Your task to perform on an android device: Go to accessibility settings Image 0: 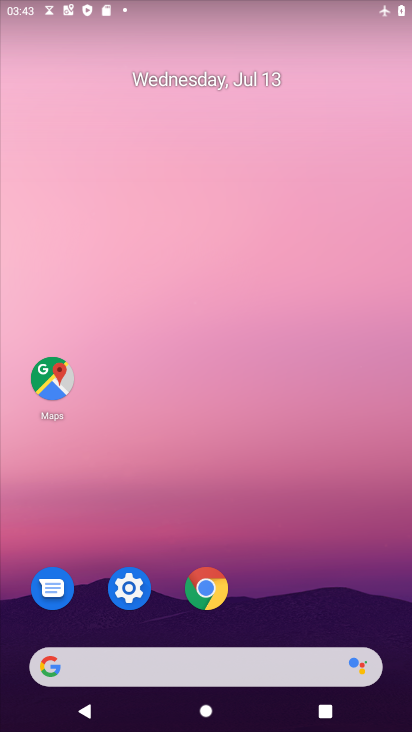
Step 0: drag from (281, 674) to (172, 147)
Your task to perform on an android device: Go to accessibility settings Image 1: 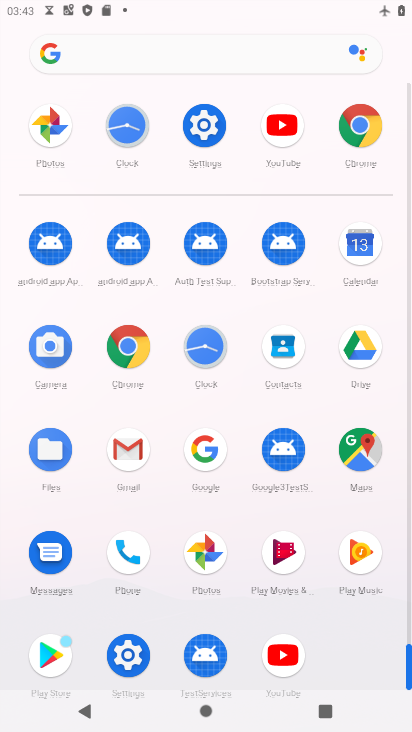
Step 1: click (126, 658)
Your task to perform on an android device: Go to accessibility settings Image 2: 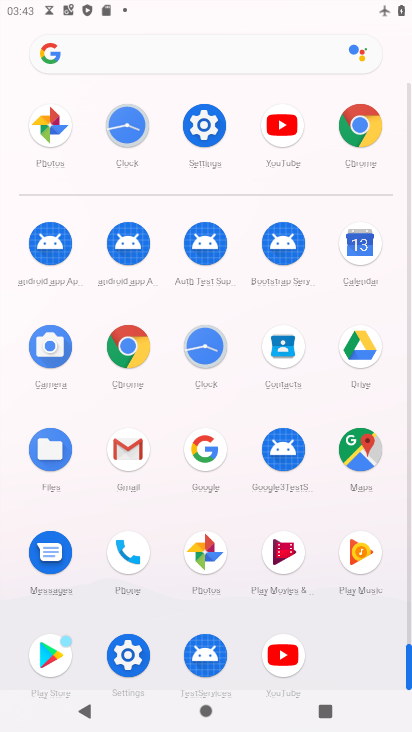
Step 2: click (131, 646)
Your task to perform on an android device: Go to accessibility settings Image 3: 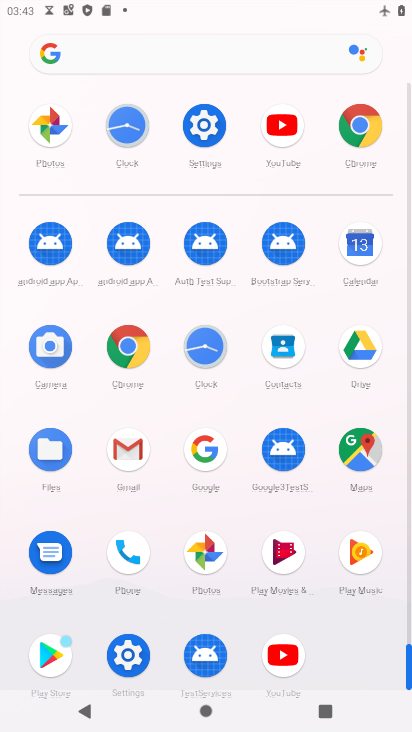
Step 3: click (133, 646)
Your task to perform on an android device: Go to accessibility settings Image 4: 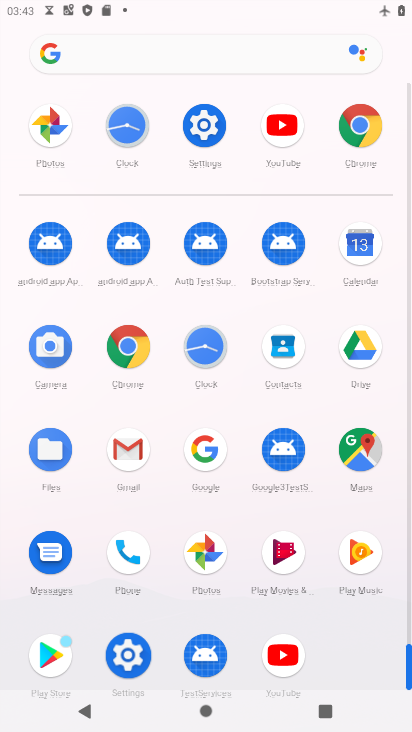
Step 4: click (133, 646)
Your task to perform on an android device: Go to accessibility settings Image 5: 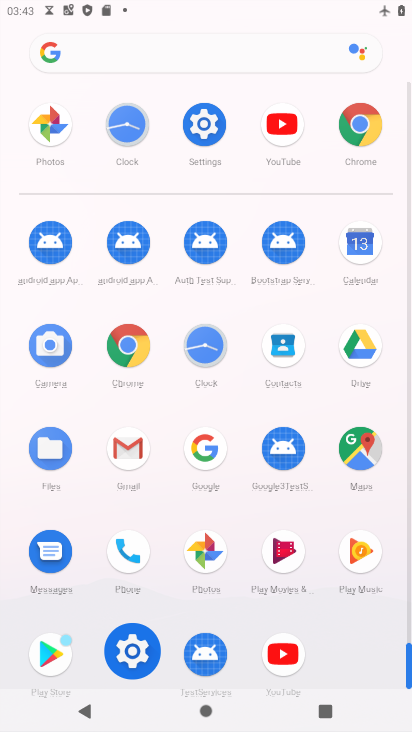
Step 5: click (134, 646)
Your task to perform on an android device: Go to accessibility settings Image 6: 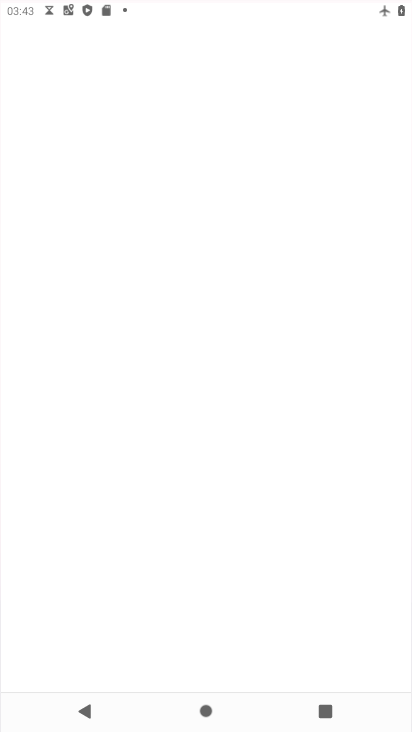
Step 6: click (138, 645)
Your task to perform on an android device: Go to accessibility settings Image 7: 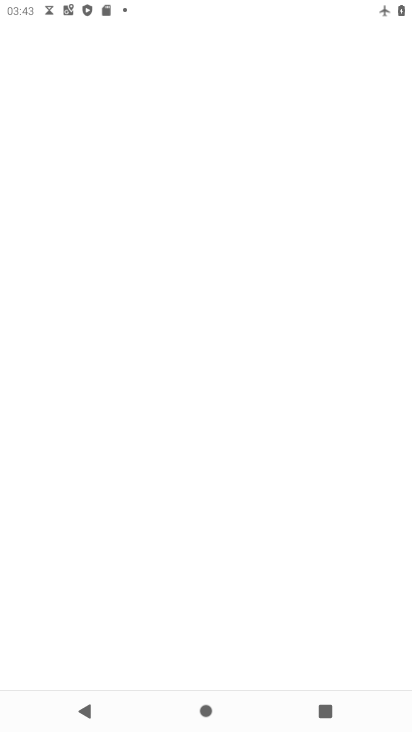
Step 7: click (141, 644)
Your task to perform on an android device: Go to accessibility settings Image 8: 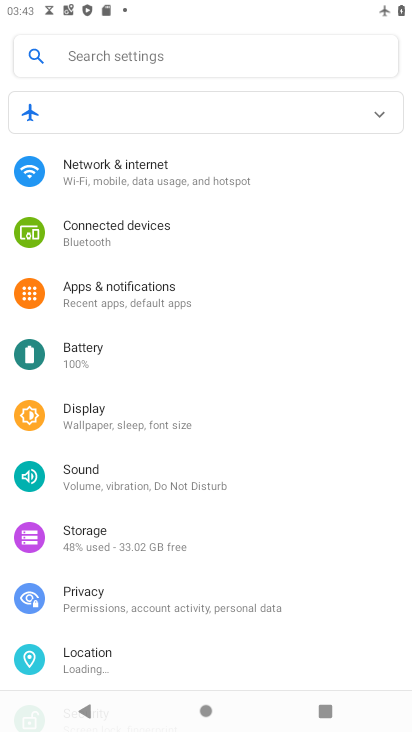
Step 8: drag from (137, 563) to (126, 148)
Your task to perform on an android device: Go to accessibility settings Image 9: 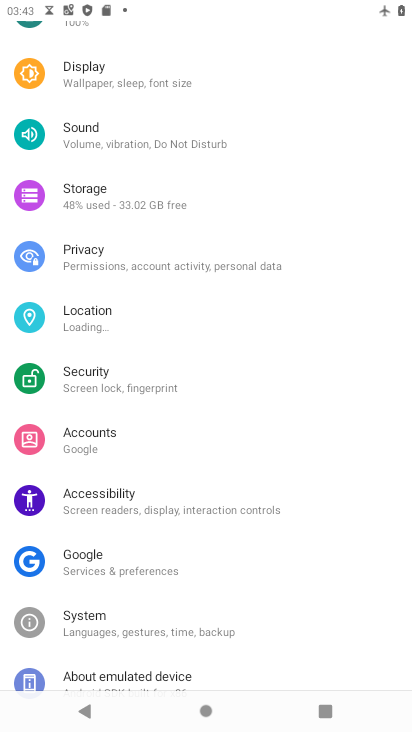
Step 9: drag from (123, 466) to (118, 113)
Your task to perform on an android device: Go to accessibility settings Image 10: 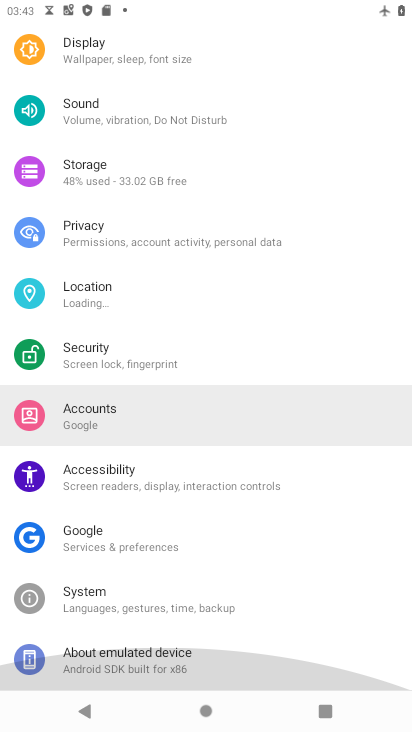
Step 10: drag from (132, 441) to (111, 197)
Your task to perform on an android device: Go to accessibility settings Image 11: 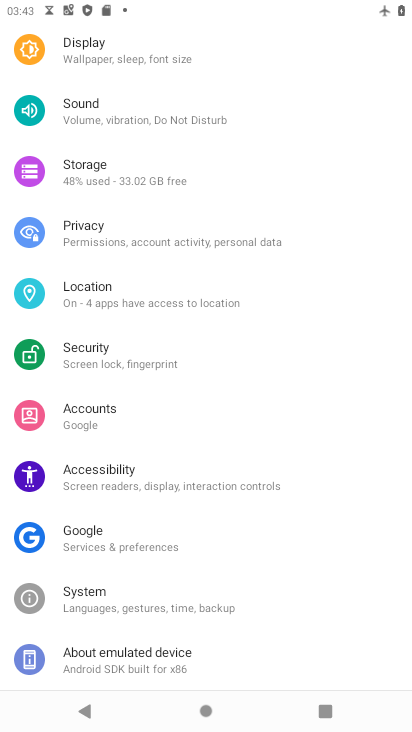
Step 11: click (96, 476)
Your task to perform on an android device: Go to accessibility settings Image 12: 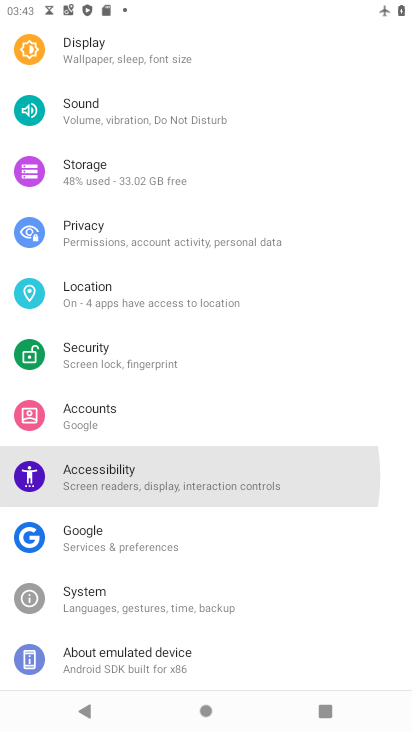
Step 12: click (97, 477)
Your task to perform on an android device: Go to accessibility settings Image 13: 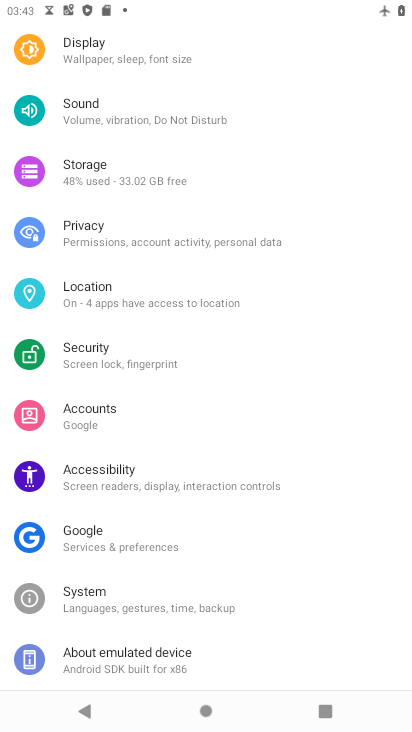
Step 13: click (106, 479)
Your task to perform on an android device: Go to accessibility settings Image 14: 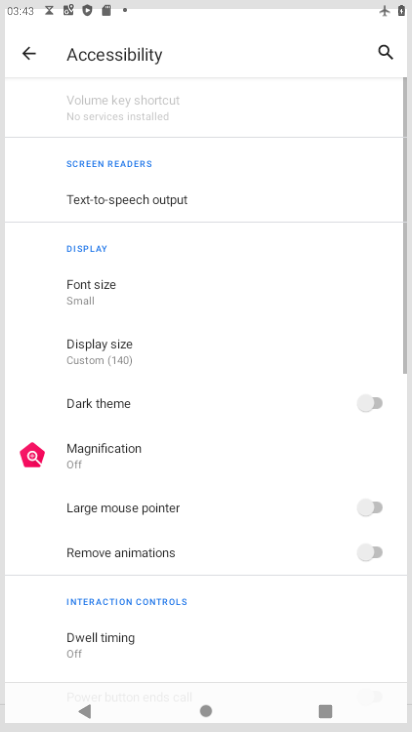
Step 14: click (107, 480)
Your task to perform on an android device: Go to accessibility settings Image 15: 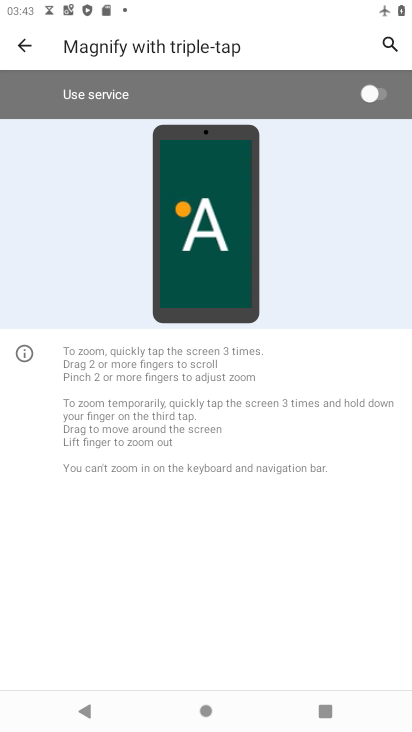
Step 15: click (19, 29)
Your task to perform on an android device: Go to accessibility settings Image 16: 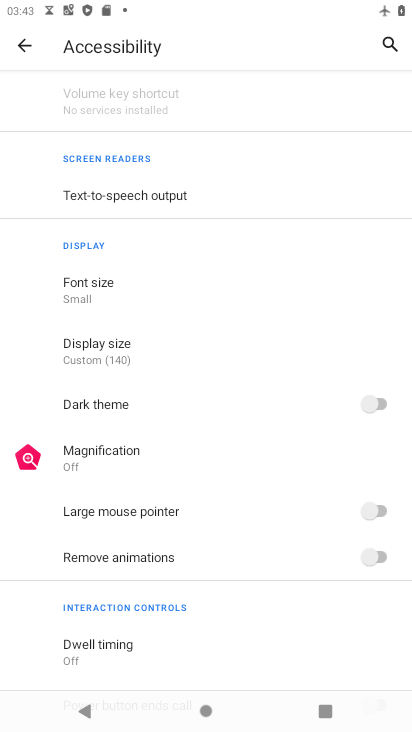
Step 16: task complete